Your task to perform on an android device: When is my next meeting? Image 0: 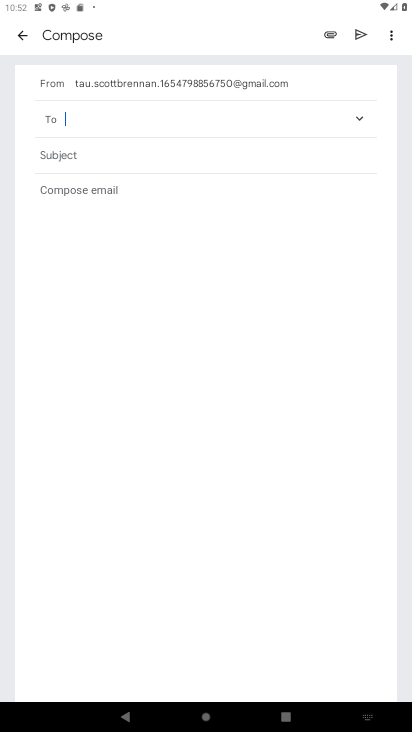
Step 0: press home button
Your task to perform on an android device: When is my next meeting? Image 1: 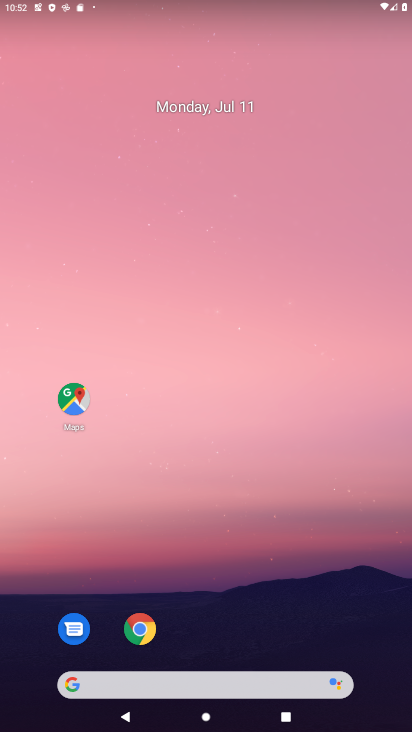
Step 1: click (230, 607)
Your task to perform on an android device: When is my next meeting? Image 2: 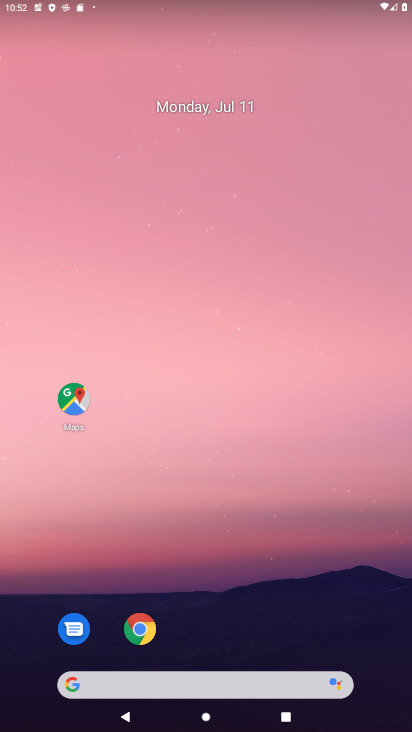
Step 2: drag from (230, 607) to (185, 121)
Your task to perform on an android device: When is my next meeting? Image 3: 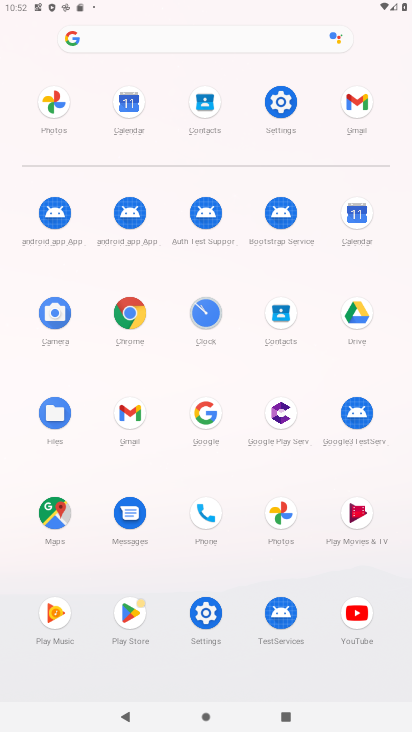
Step 3: click (126, 113)
Your task to perform on an android device: When is my next meeting? Image 4: 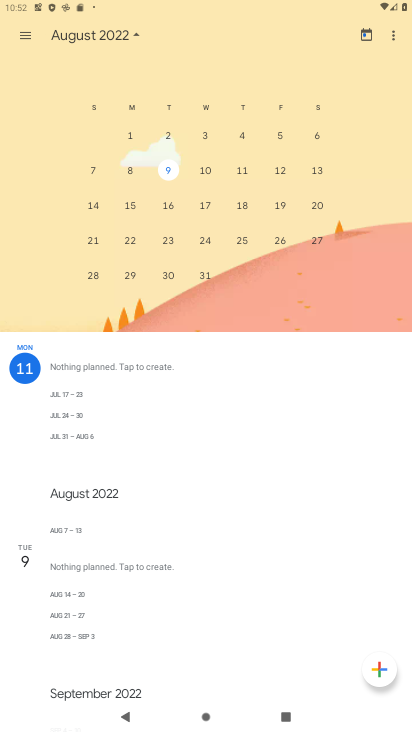
Step 4: task complete